Your task to perform on an android device: Open Reddit.com Image 0: 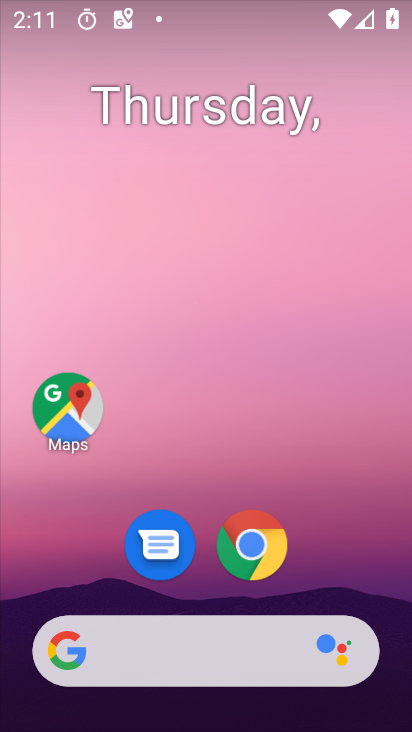
Step 0: click (256, 556)
Your task to perform on an android device: Open Reddit.com Image 1: 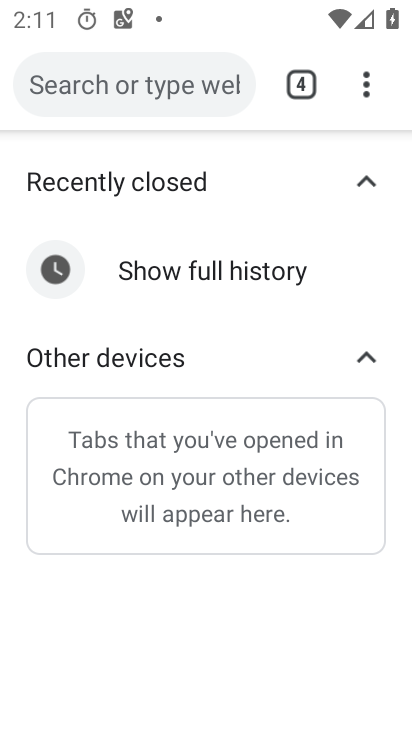
Step 1: click (366, 88)
Your task to perform on an android device: Open Reddit.com Image 2: 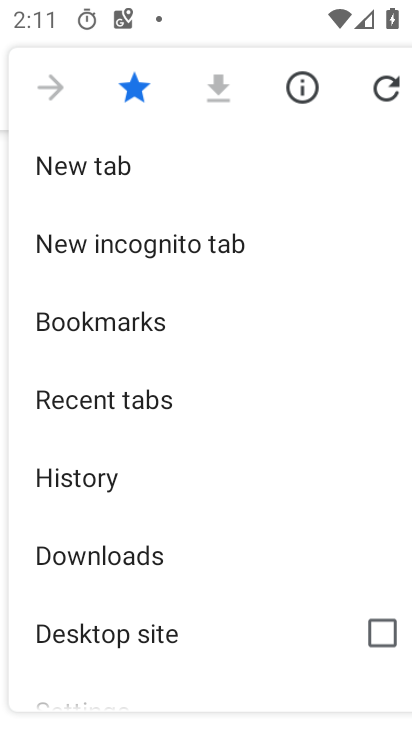
Step 2: click (88, 170)
Your task to perform on an android device: Open Reddit.com Image 3: 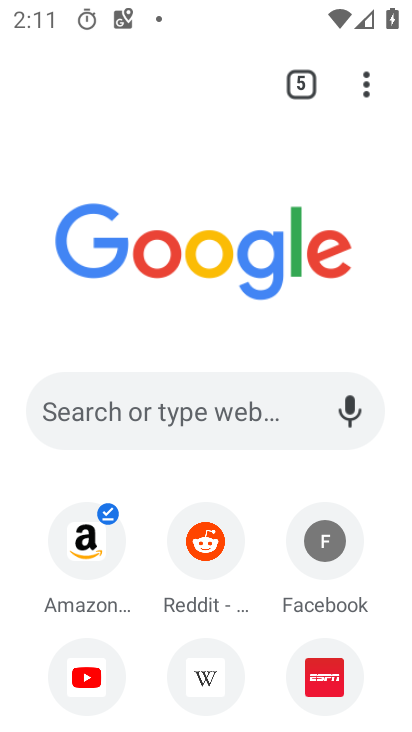
Step 3: click (202, 545)
Your task to perform on an android device: Open Reddit.com Image 4: 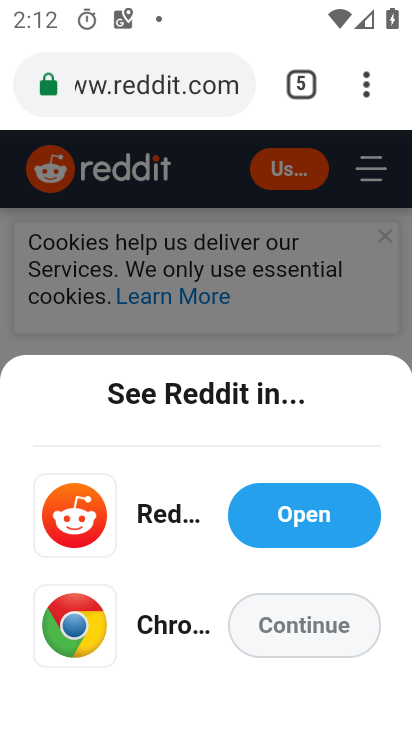
Step 4: task complete